Your task to perform on an android device: turn off sleep mode Image 0: 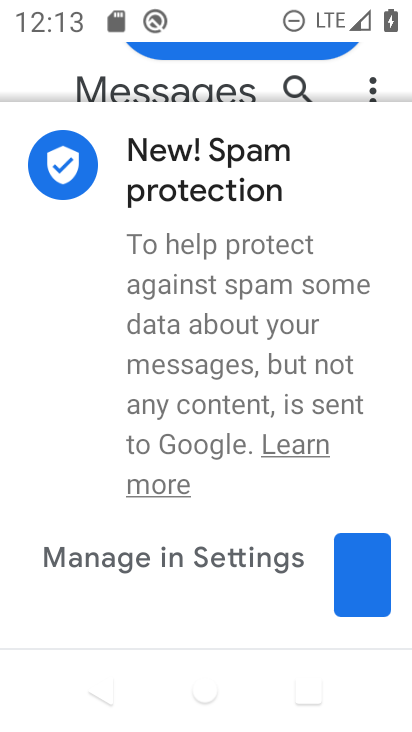
Step 0: press home button
Your task to perform on an android device: turn off sleep mode Image 1: 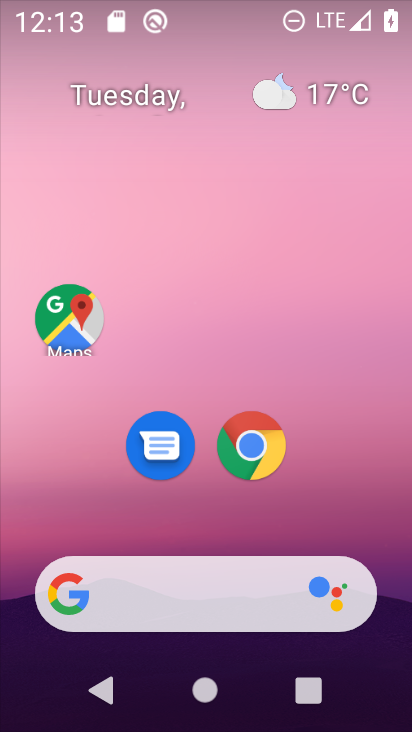
Step 1: drag from (391, 586) to (353, 121)
Your task to perform on an android device: turn off sleep mode Image 2: 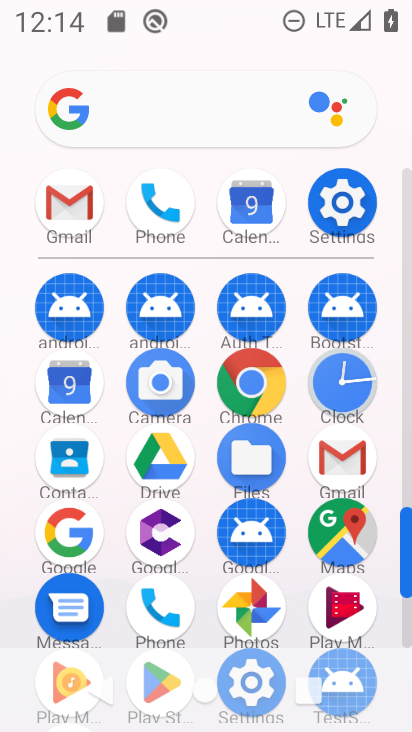
Step 2: click (402, 607)
Your task to perform on an android device: turn off sleep mode Image 3: 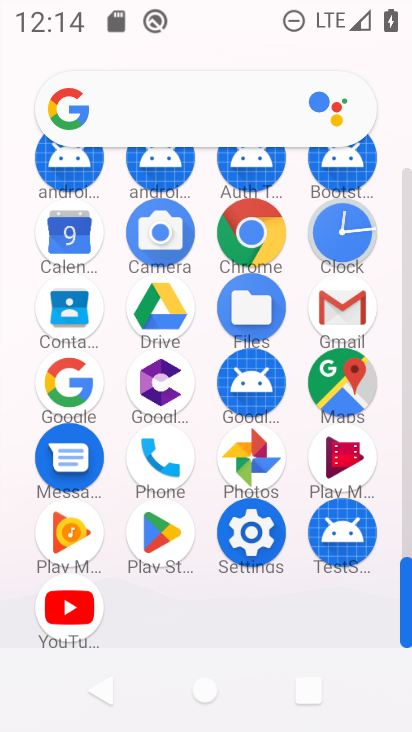
Step 3: click (248, 526)
Your task to perform on an android device: turn off sleep mode Image 4: 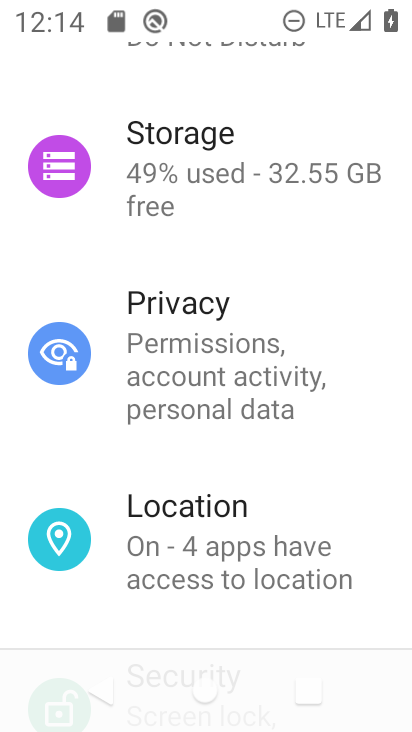
Step 4: drag from (352, 138) to (351, 459)
Your task to perform on an android device: turn off sleep mode Image 5: 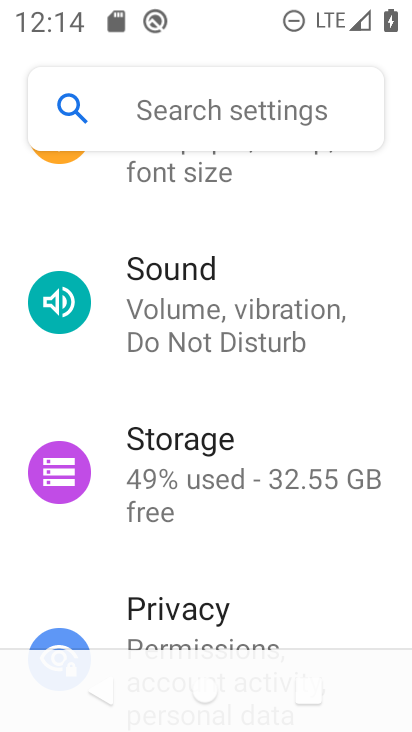
Step 5: drag from (390, 180) to (342, 588)
Your task to perform on an android device: turn off sleep mode Image 6: 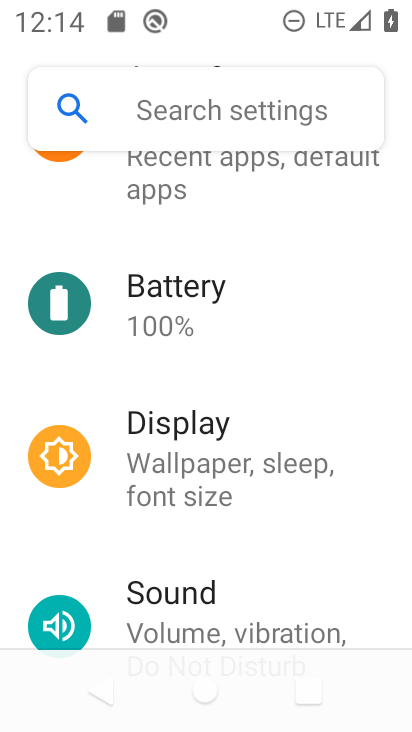
Step 6: click (195, 426)
Your task to perform on an android device: turn off sleep mode Image 7: 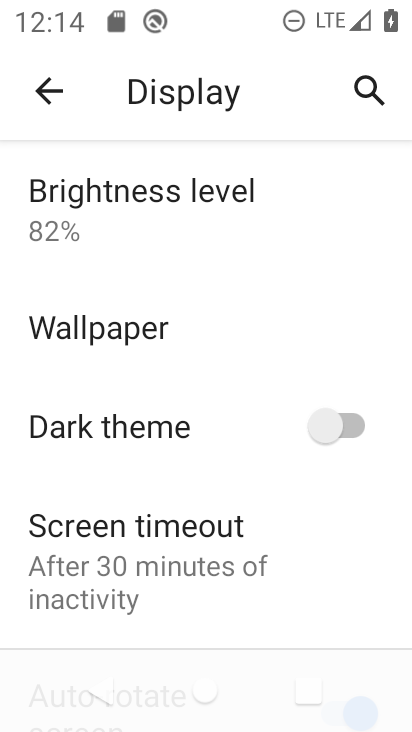
Step 7: drag from (270, 316) to (222, 292)
Your task to perform on an android device: turn off sleep mode Image 8: 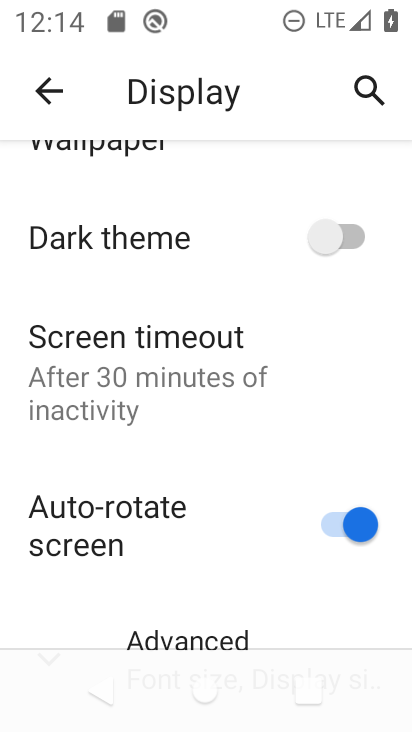
Step 8: drag from (241, 564) to (196, 289)
Your task to perform on an android device: turn off sleep mode Image 9: 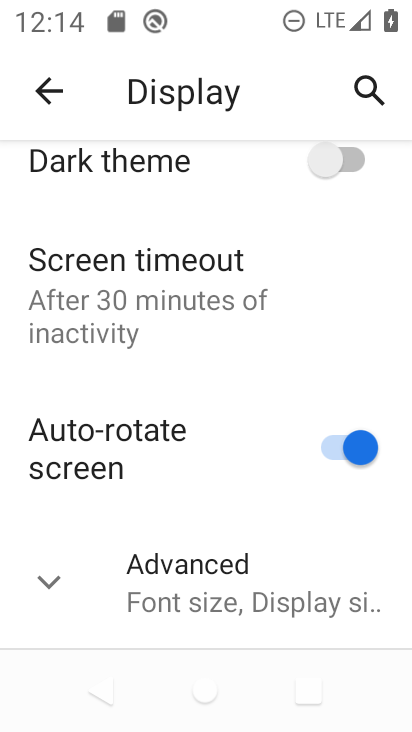
Step 9: click (53, 580)
Your task to perform on an android device: turn off sleep mode Image 10: 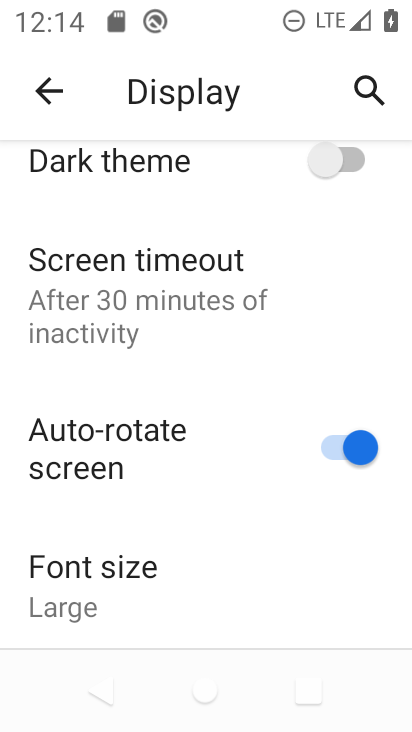
Step 10: task complete